Your task to perform on an android device: What's on my calendar tomorrow? Image 0: 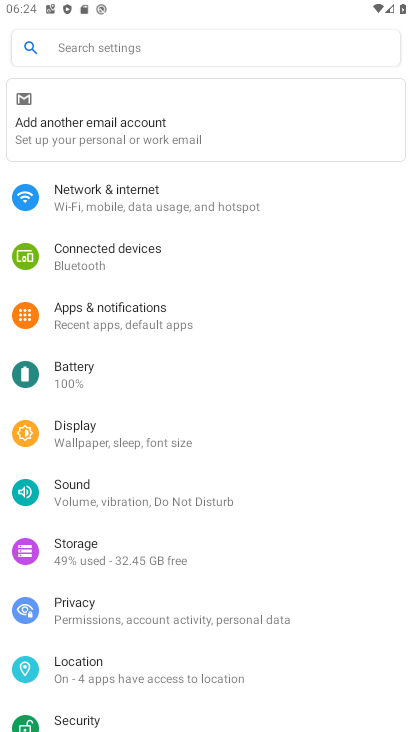
Step 0: press home button
Your task to perform on an android device: What's on my calendar tomorrow? Image 1: 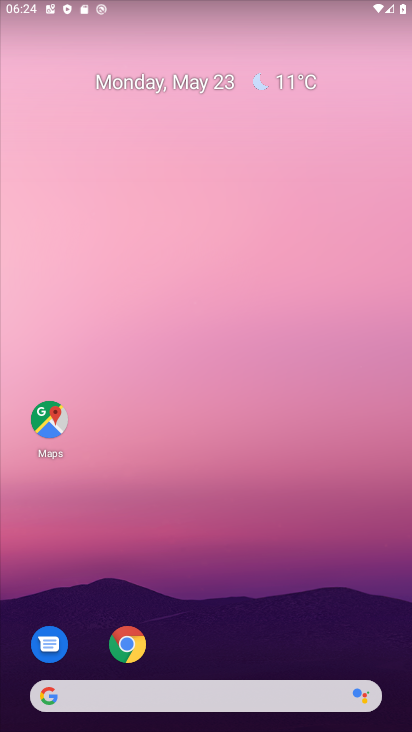
Step 1: drag from (221, 646) to (208, 277)
Your task to perform on an android device: What's on my calendar tomorrow? Image 2: 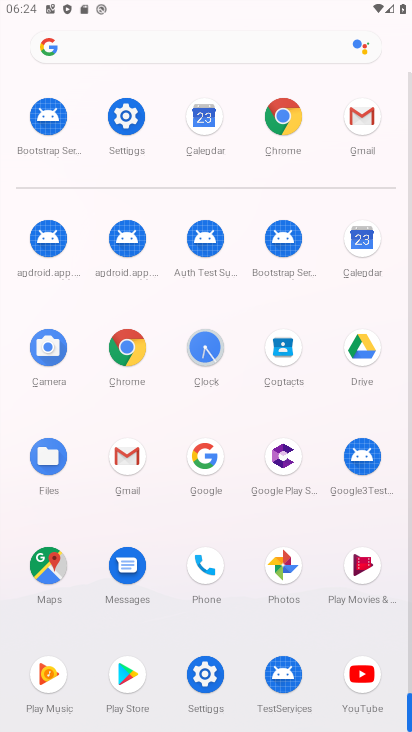
Step 2: click (356, 269)
Your task to perform on an android device: What's on my calendar tomorrow? Image 3: 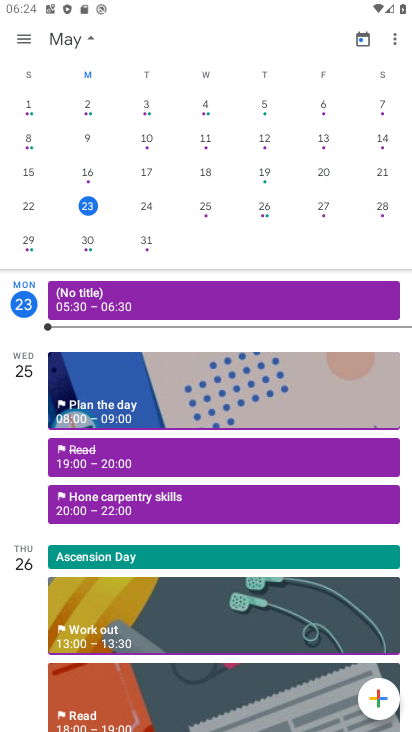
Step 3: task complete